Your task to perform on an android device: Open the phone app and click the voicemail tab. Image 0: 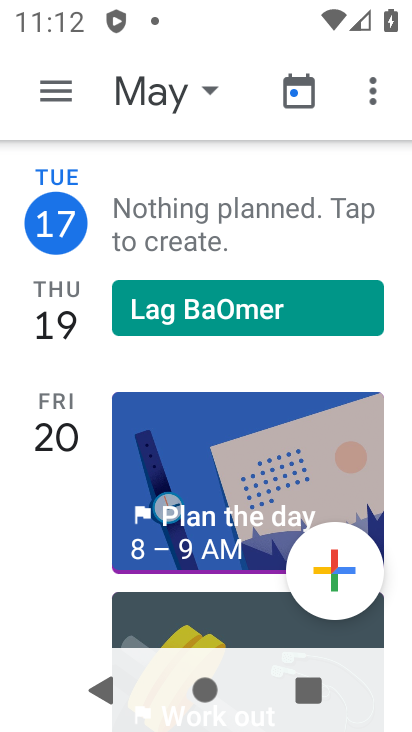
Step 0: press home button
Your task to perform on an android device: Open the phone app and click the voicemail tab. Image 1: 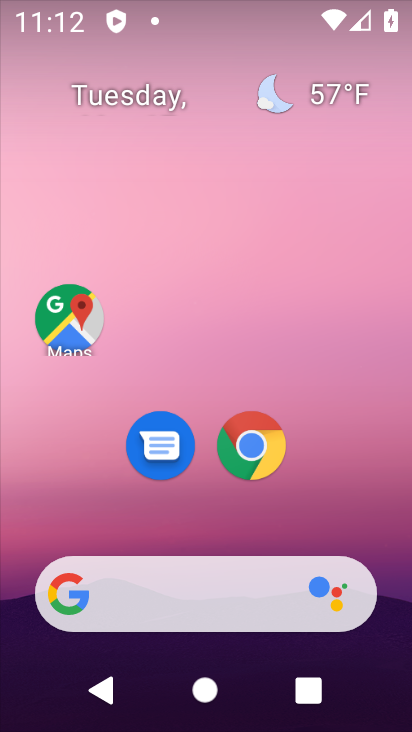
Step 1: drag from (333, 513) to (353, 114)
Your task to perform on an android device: Open the phone app and click the voicemail tab. Image 2: 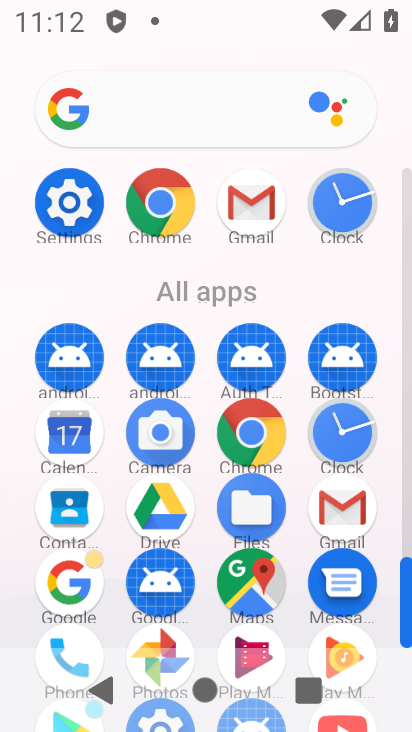
Step 2: drag from (290, 539) to (299, 362)
Your task to perform on an android device: Open the phone app and click the voicemail tab. Image 3: 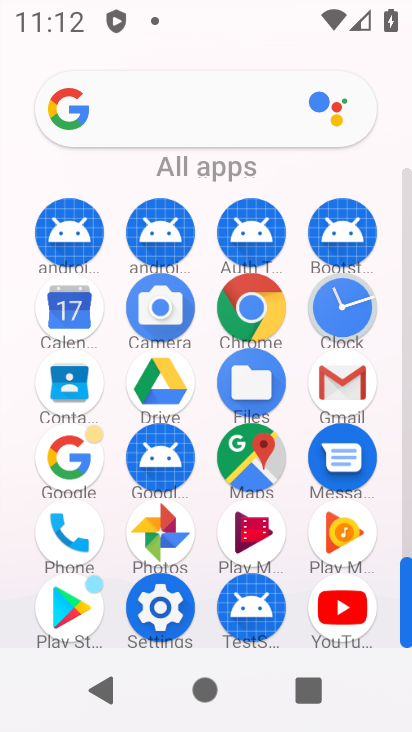
Step 3: click (258, 544)
Your task to perform on an android device: Open the phone app and click the voicemail tab. Image 4: 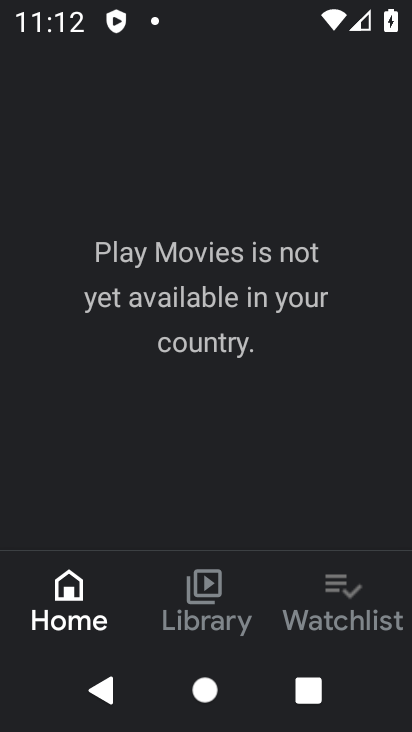
Step 4: click (348, 601)
Your task to perform on an android device: Open the phone app and click the voicemail tab. Image 5: 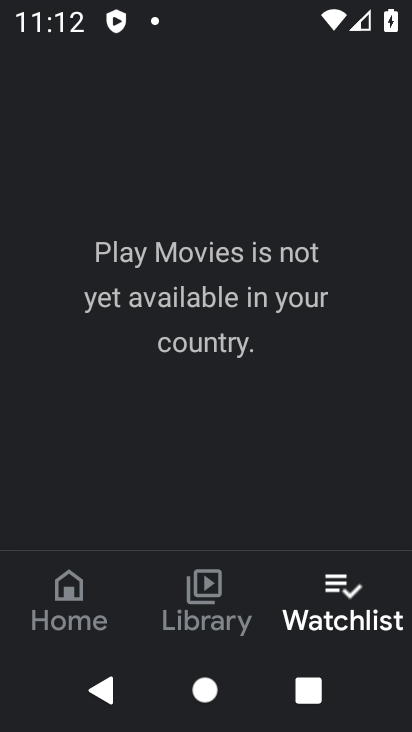
Step 5: task complete